Your task to perform on an android device: turn on priority inbox in the gmail app Image 0: 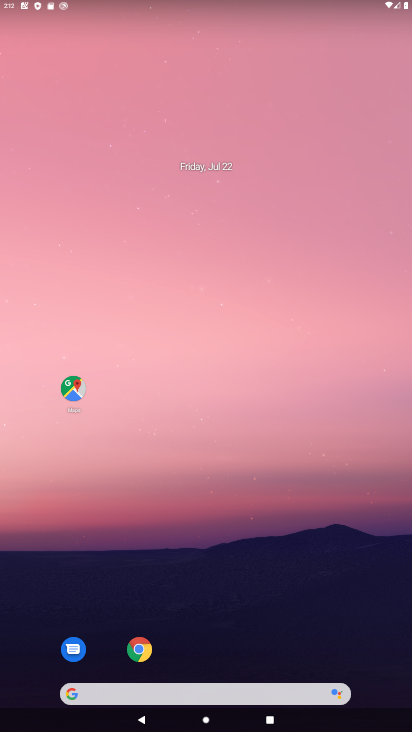
Step 0: drag from (188, 647) to (272, 138)
Your task to perform on an android device: turn on priority inbox in the gmail app Image 1: 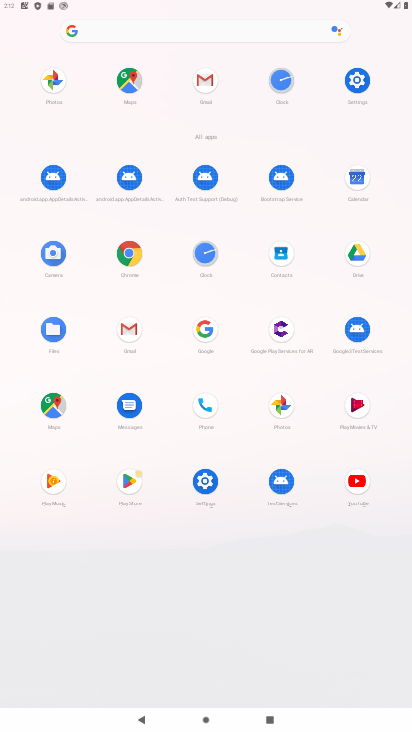
Step 1: click (123, 325)
Your task to perform on an android device: turn on priority inbox in the gmail app Image 2: 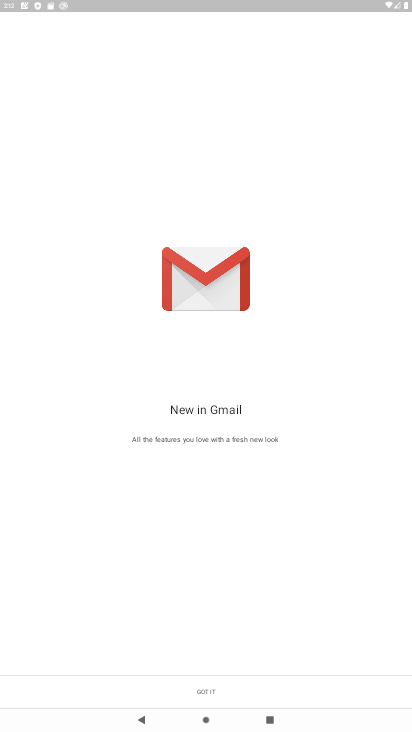
Step 2: click (205, 693)
Your task to perform on an android device: turn on priority inbox in the gmail app Image 3: 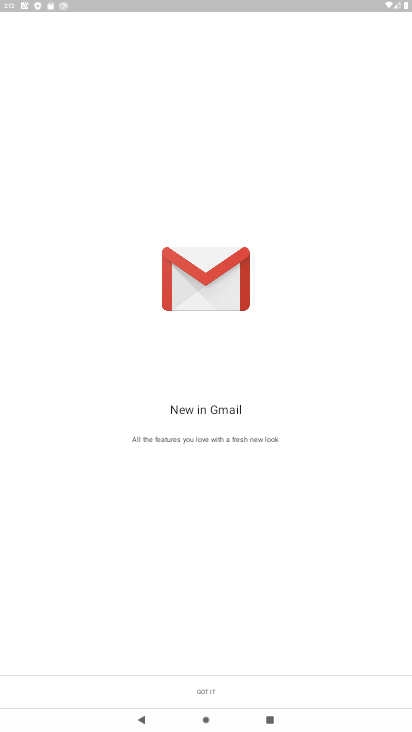
Step 3: click (205, 693)
Your task to perform on an android device: turn on priority inbox in the gmail app Image 4: 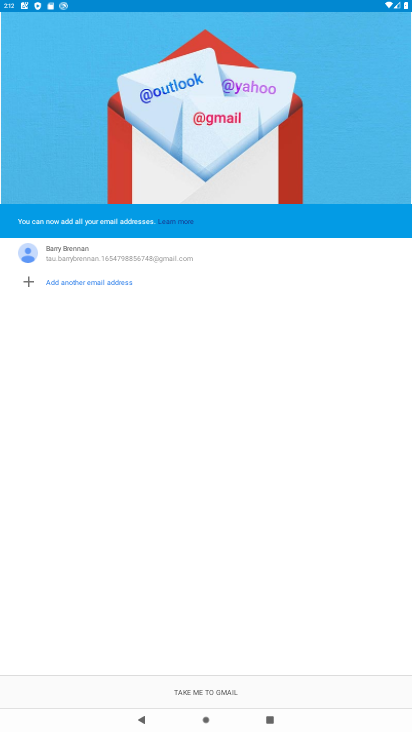
Step 4: click (204, 692)
Your task to perform on an android device: turn on priority inbox in the gmail app Image 5: 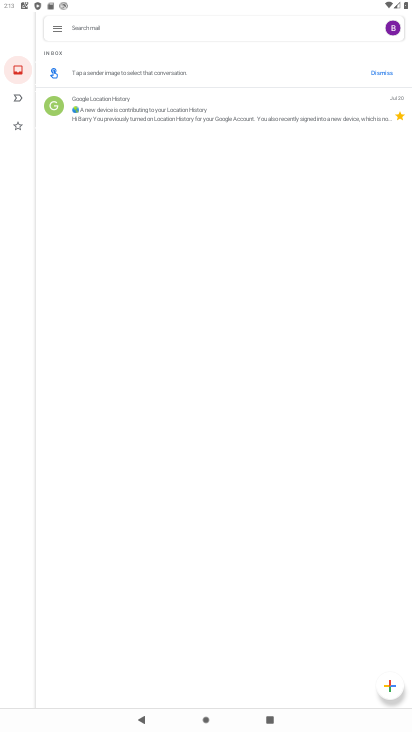
Step 5: drag from (189, 454) to (253, 268)
Your task to perform on an android device: turn on priority inbox in the gmail app Image 6: 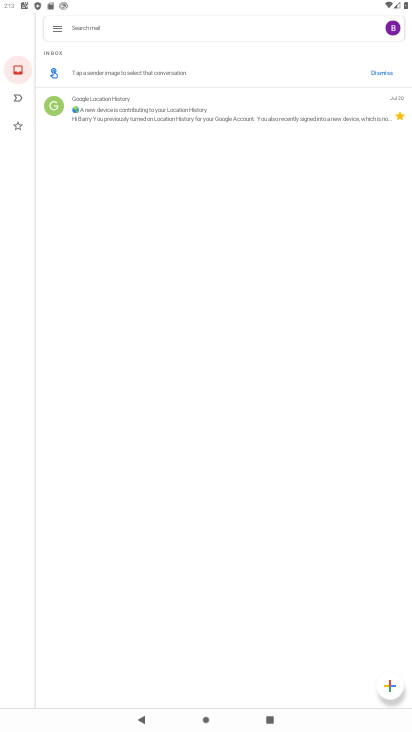
Step 6: click (54, 26)
Your task to perform on an android device: turn on priority inbox in the gmail app Image 7: 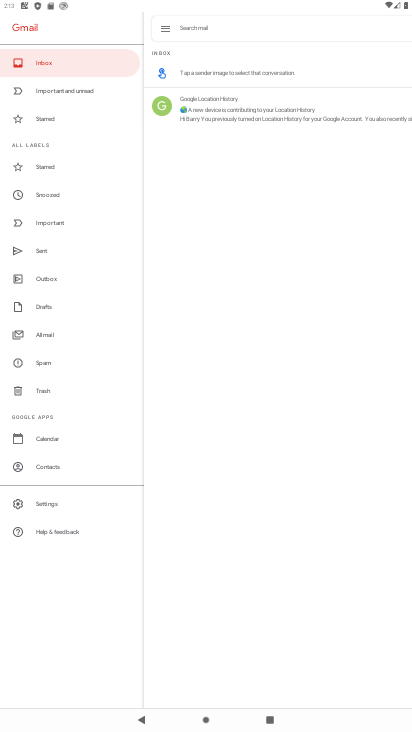
Step 7: click (55, 498)
Your task to perform on an android device: turn on priority inbox in the gmail app Image 8: 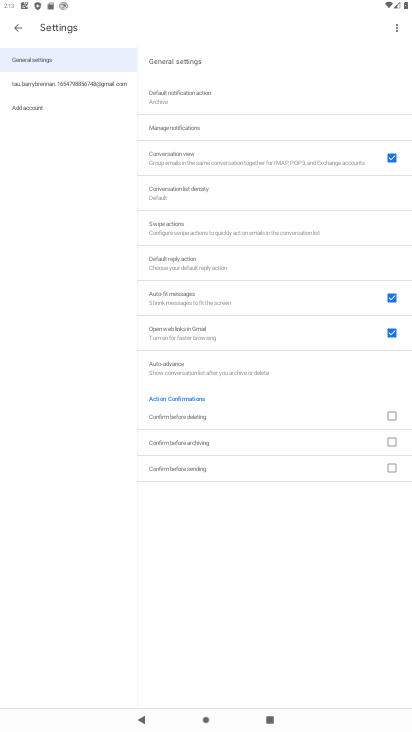
Step 8: click (72, 87)
Your task to perform on an android device: turn on priority inbox in the gmail app Image 9: 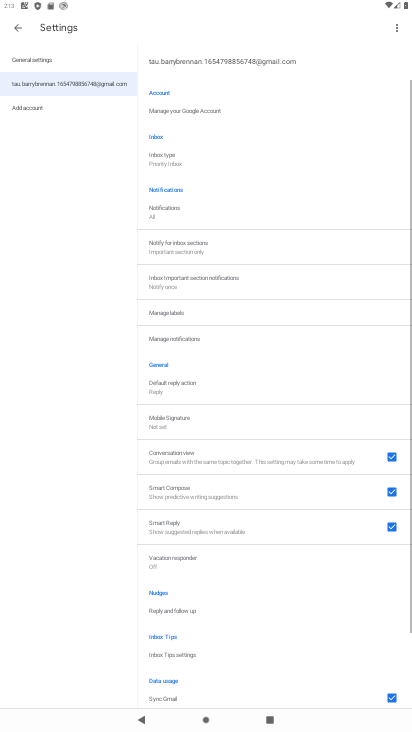
Step 9: click (166, 162)
Your task to perform on an android device: turn on priority inbox in the gmail app Image 10: 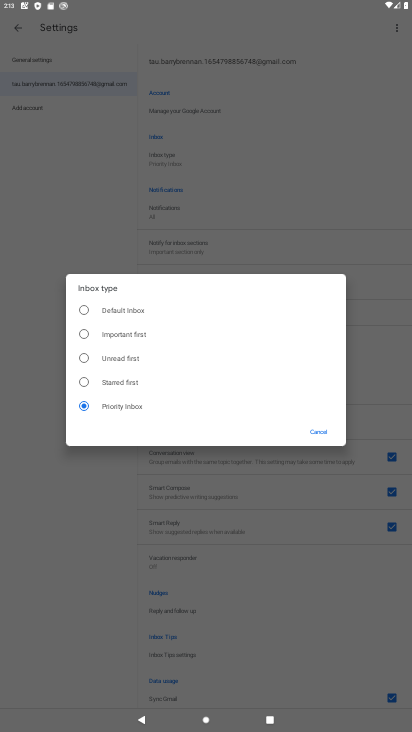
Step 10: click (120, 407)
Your task to perform on an android device: turn on priority inbox in the gmail app Image 11: 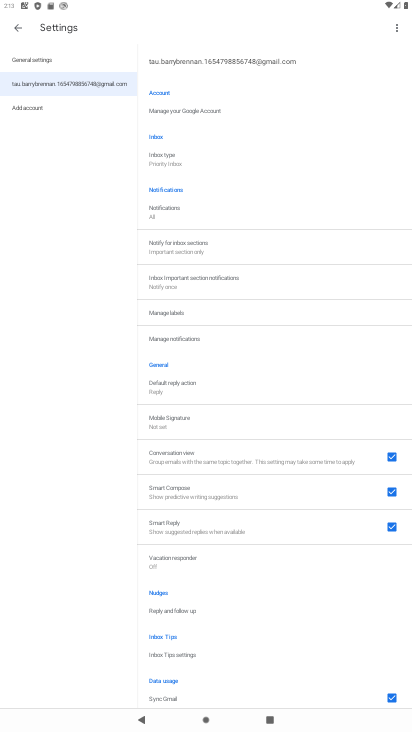
Step 11: task complete